Your task to perform on an android device: Open sound settings Image 0: 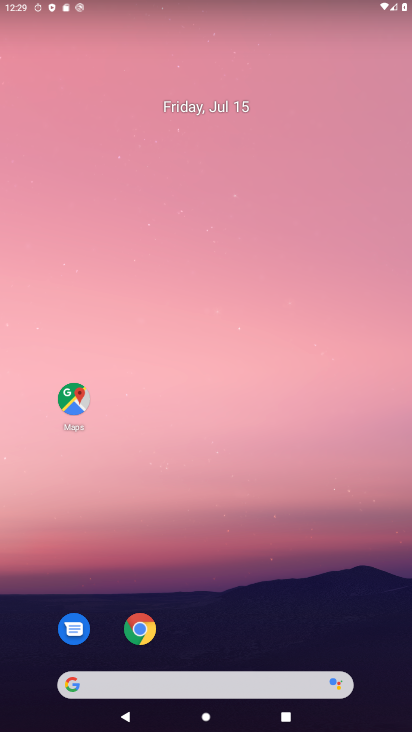
Step 0: drag from (192, 638) to (189, 3)
Your task to perform on an android device: Open sound settings Image 1: 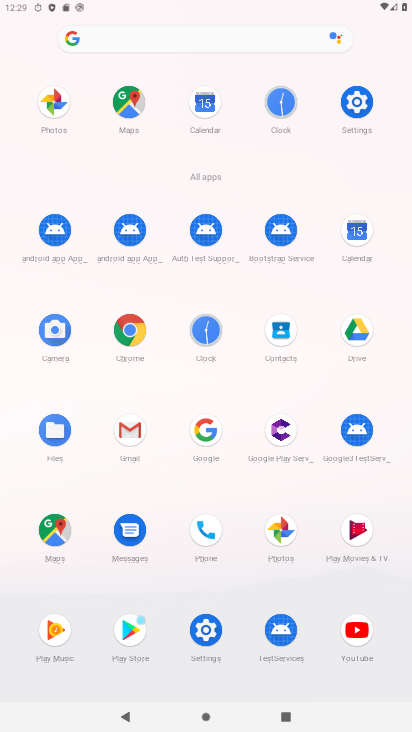
Step 1: click (208, 640)
Your task to perform on an android device: Open sound settings Image 2: 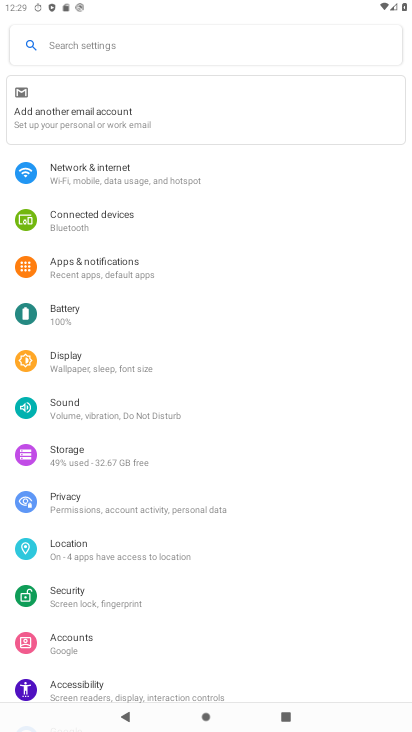
Step 2: click (98, 408)
Your task to perform on an android device: Open sound settings Image 3: 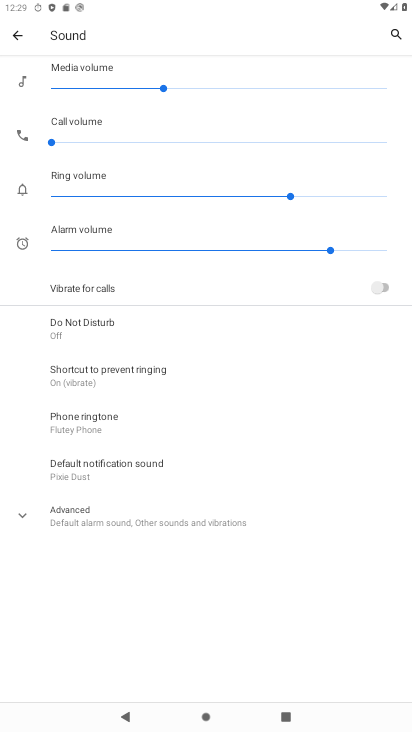
Step 3: task complete